Your task to perform on an android device: allow notifications from all sites in the chrome app Image 0: 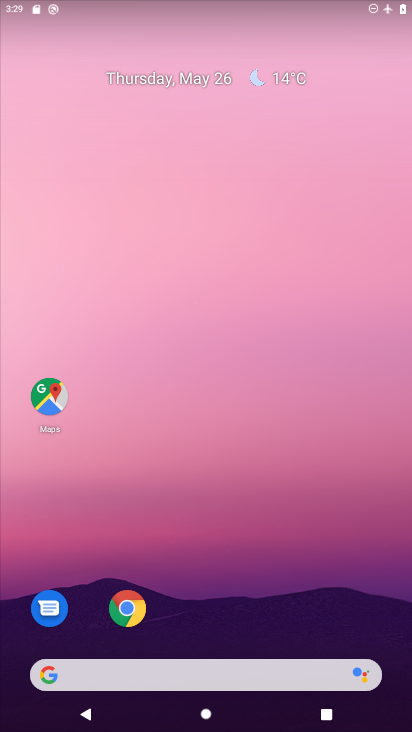
Step 0: drag from (371, 598) to (395, 145)
Your task to perform on an android device: allow notifications from all sites in the chrome app Image 1: 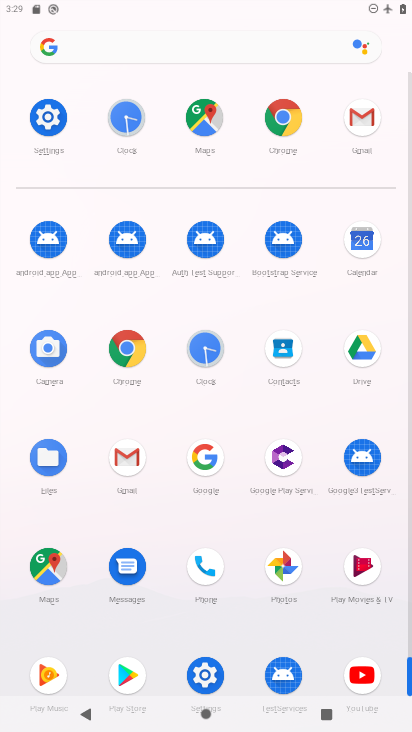
Step 1: click (293, 127)
Your task to perform on an android device: allow notifications from all sites in the chrome app Image 2: 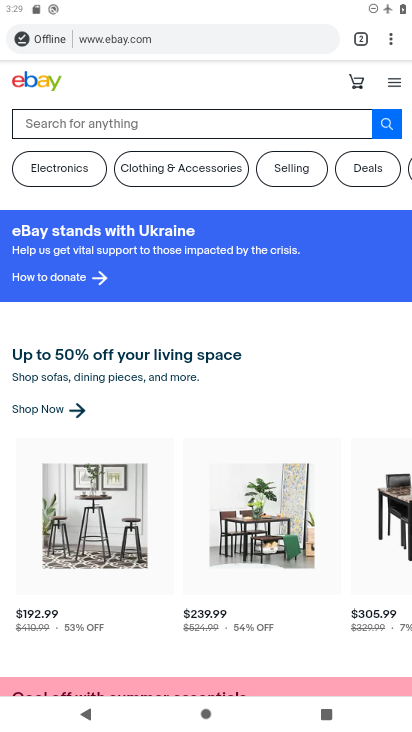
Step 2: drag from (395, 47) to (250, 432)
Your task to perform on an android device: allow notifications from all sites in the chrome app Image 3: 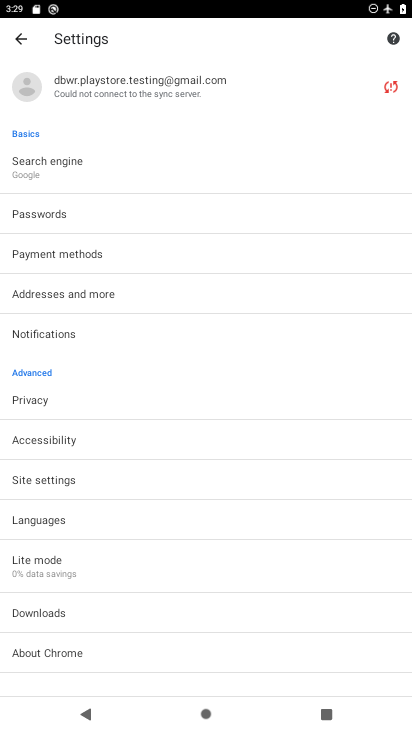
Step 3: click (63, 476)
Your task to perform on an android device: allow notifications from all sites in the chrome app Image 4: 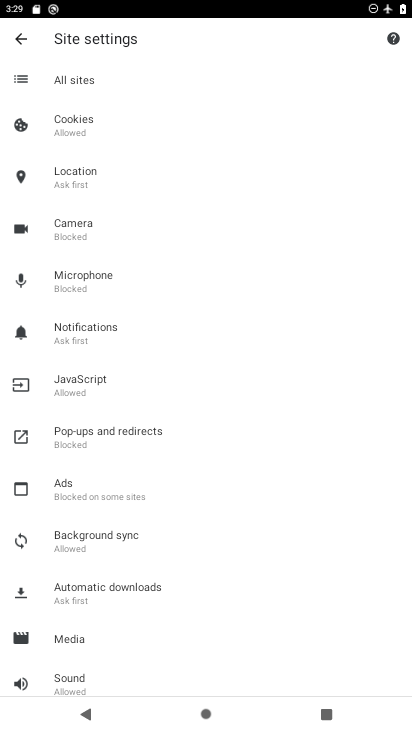
Step 4: click (95, 342)
Your task to perform on an android device: allow notifications from all sites in the chrome app Image 5: 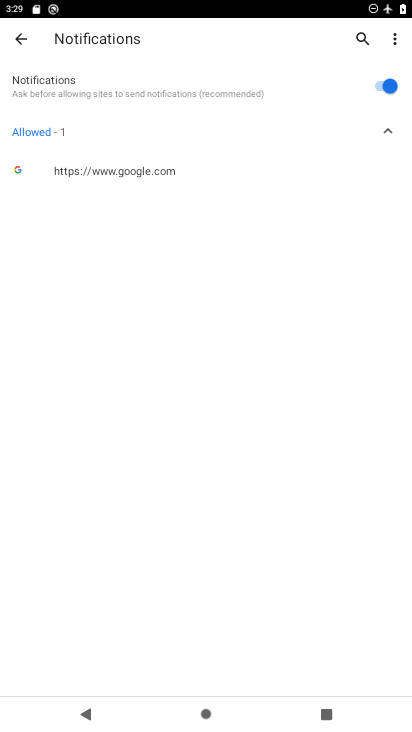
Step 5: task complete